Your task to perform on an android device: Open my contact list Image 0: 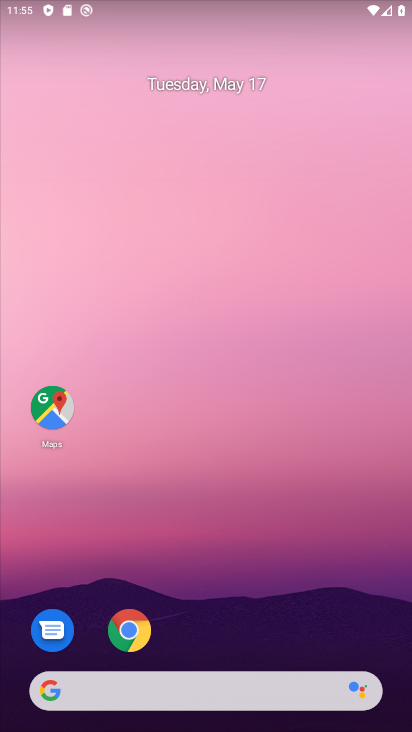
Step 0: drag from (280, 481) to (345, 236)
Your task to perform on an android device: Open my contact list Image 1: 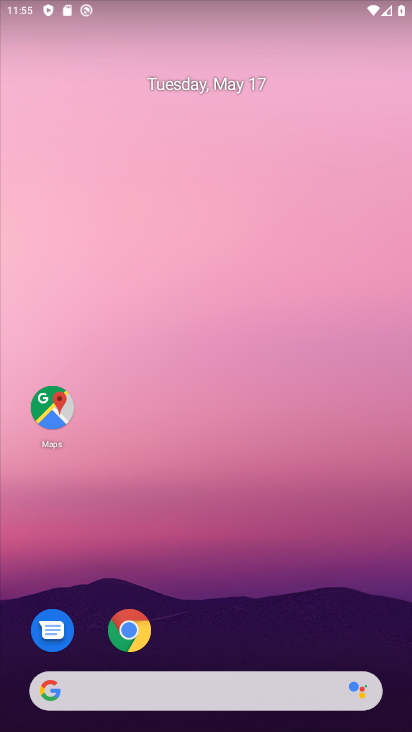
Step 1: drag from (275, 623) to (316, 241)
Your task to perform on an android device: Open my contact list Image 2: 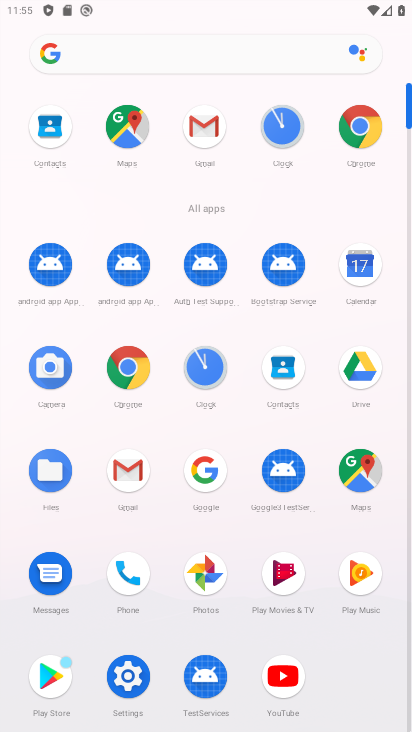
Step 2: click (285, 376)
Your task to perform on an android device: Open my contact list Image 3: 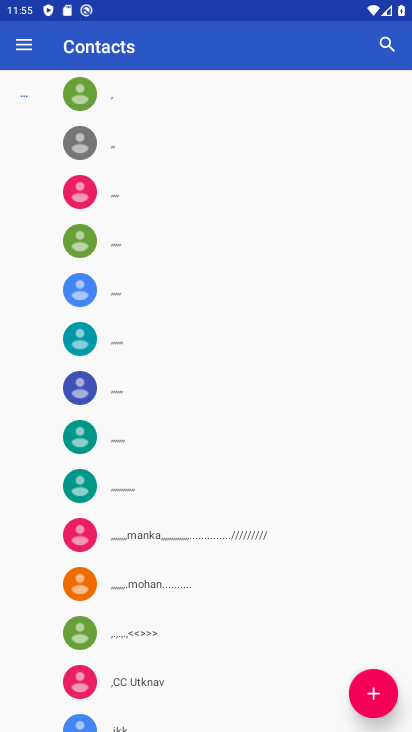
Step 3: task complete